Your task to perform on an android device: turn off data saver in the chrome app Image 0: 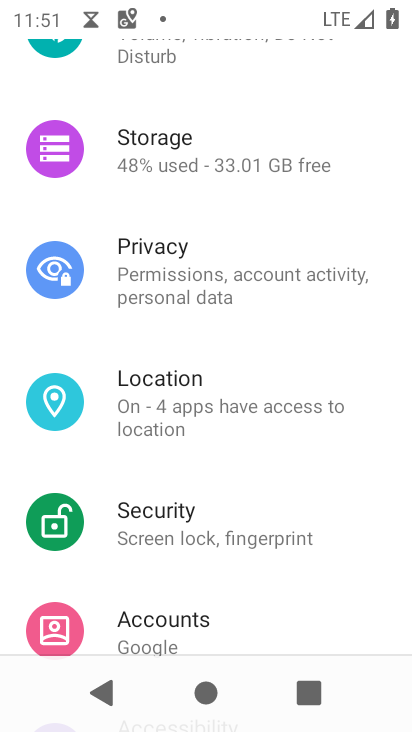
Step 0: click (386, 25)
Your task to perform on an android device: turn off data saver in the chrome app Image 1: 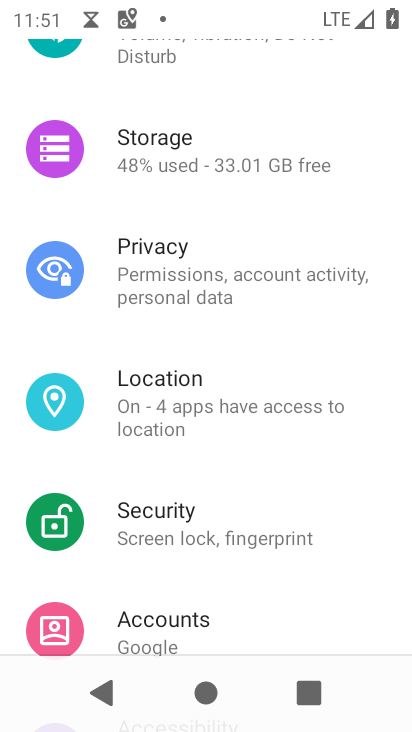
Step 1: press home button
Your task to perform on an android device: turn off data saver in the chrome app Image 2: 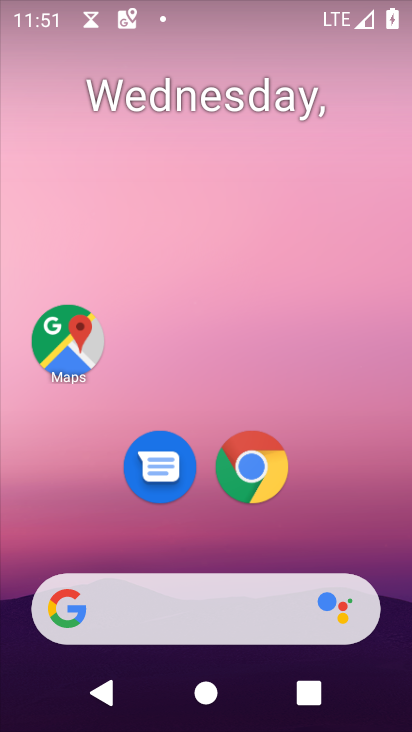
Step 2: drag from (167, 616) to (256, 160)
Your task to perform on an android device: turn off data saver in the chrome app Image 3: 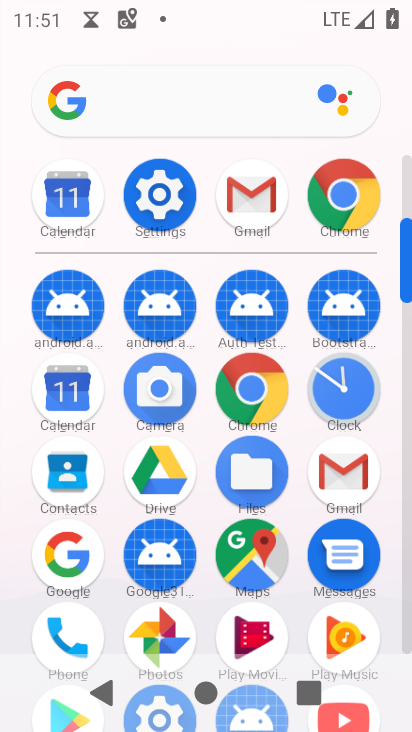
Step 3: click (341, 206)
Your task to perform on an android device: turn off data saver in the chrome app Image 4: 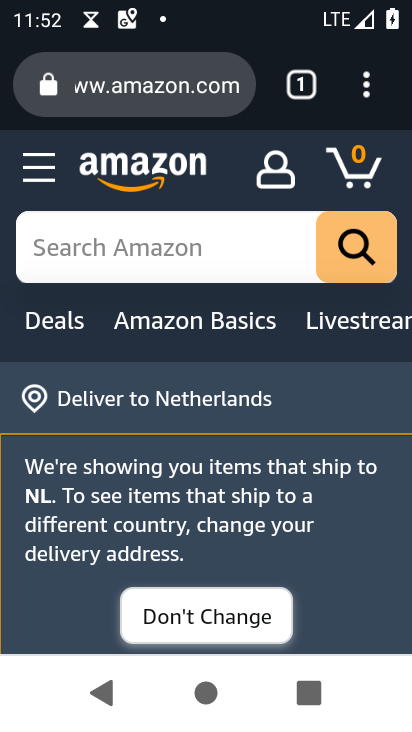
Step 4: drag from (362, 95) to (138, 506)
Your task to perform on an android device: turn off data saver in the chrome app Image 5: 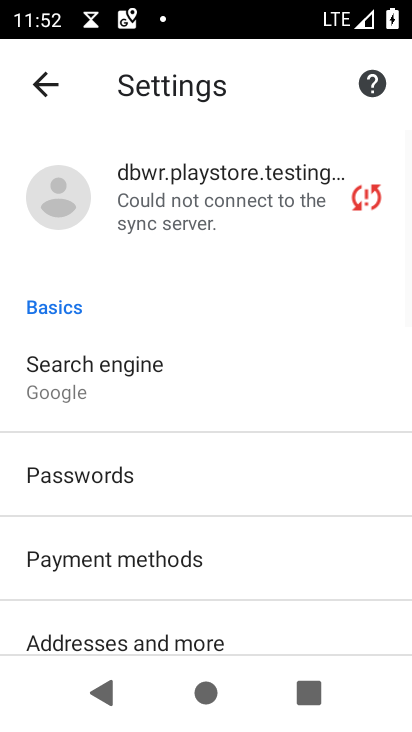
Step 5: drag from (161, 602) to (341, 144)
Your task to perform on an android device: turn off data saver in the chrome app Image 6: 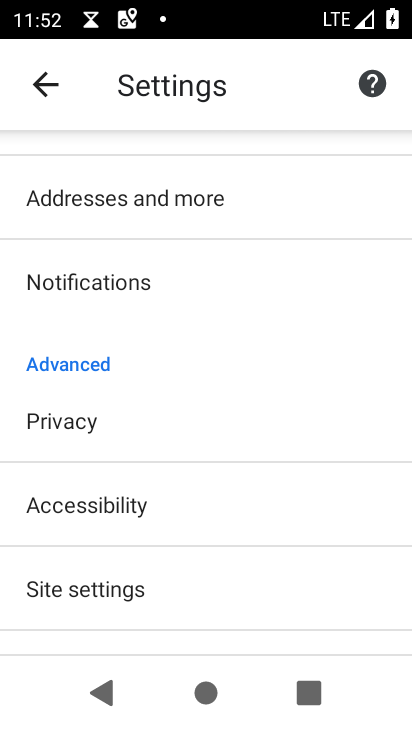
Step 6: drag from (198, 492) to (249, 212)
Your task to perform on an android device: turn off data saver in the chrome app Image 7: 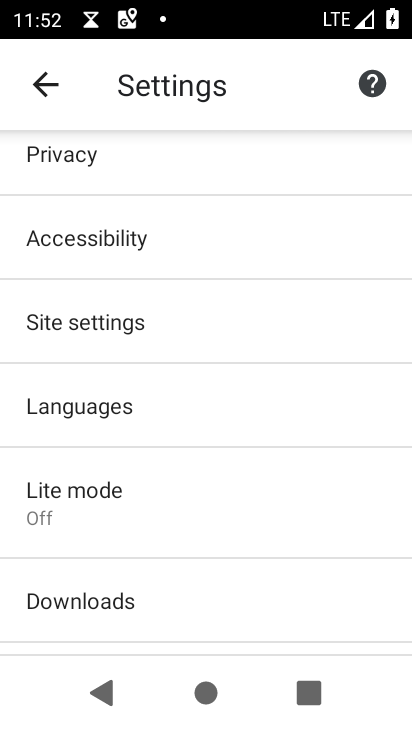
Step 7: click (78, 495)
Your task to perform on an android device: turn off data saver in the chrome app Image 8: 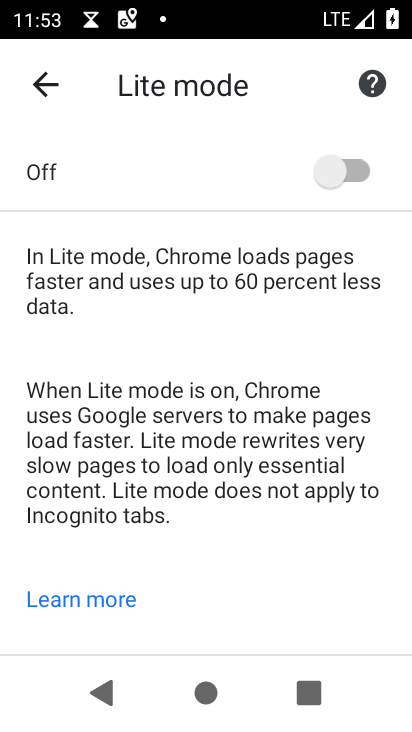
Step 8: task complete